Your task to perform on an android device: turn on the 12-hour format for clock Image 0: 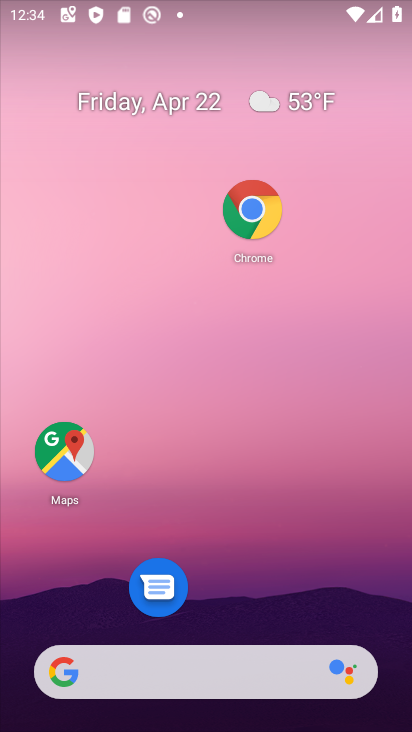
Step 0: drag from (260, 521) to (204, 98)
Your task to perform on an android device: turn on the 12-hour format for clock Image 1: 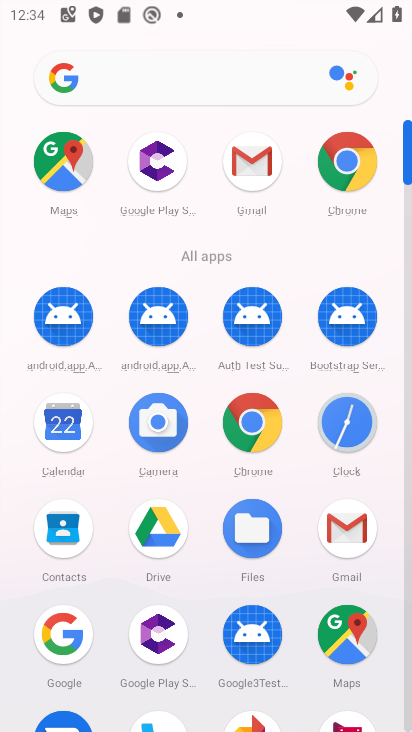
Step 1: drag from (288, 244) to (281, 12)
Your task to perform on an android device: turn on the 12-hour format for clock Image 2: 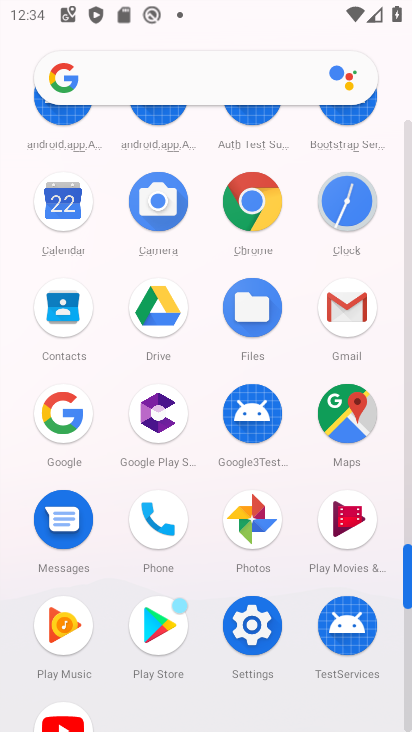
Step 2: click (341, 190)
Your task to perform on an android device: turn on the 12-hour format for clock Image 3: 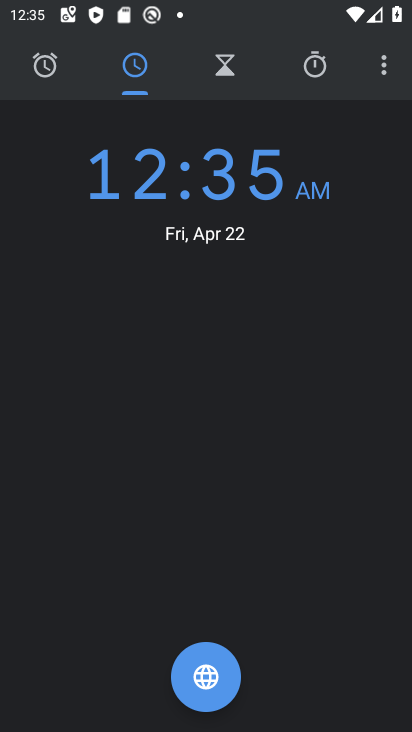
Step 3: click (381, 66)
Your task to perform on an android device: turn on the 12-hour format for clock Image 4: 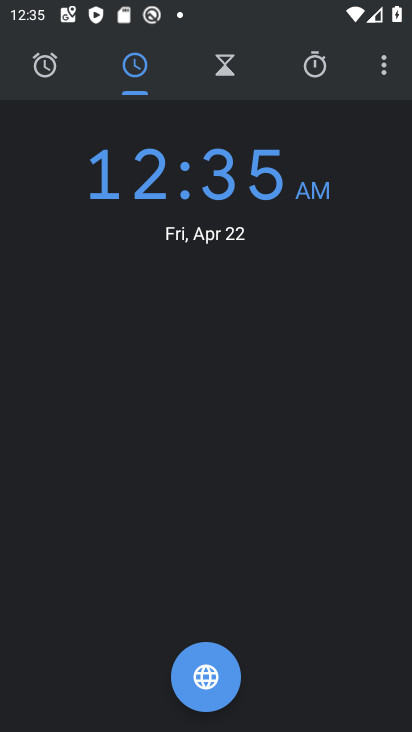
Step 4: click (388, 65)
Your task to perform on an android device: turn on the 12-hour format for clock Image 5: 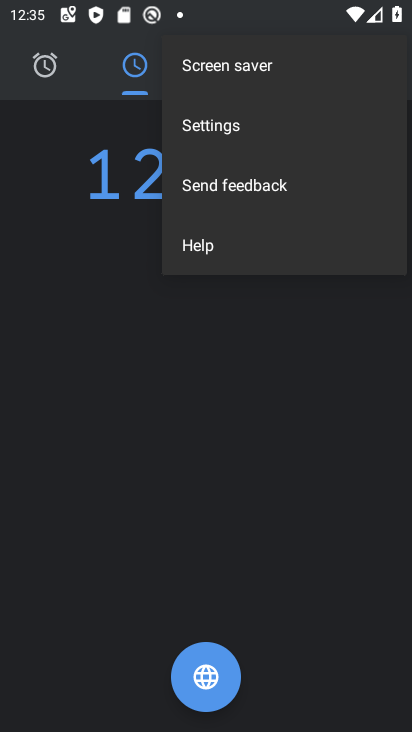
Step 5: click (228, 131)
Your task to perform on an android device: turn on the 12-hour format for clock Image 6: 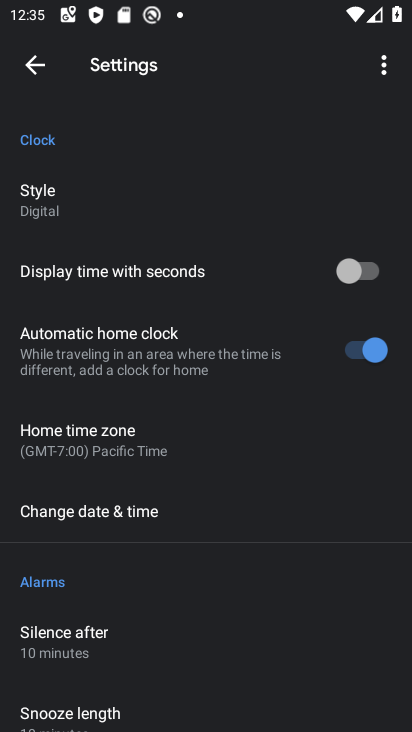
Step 6: click (64, 500)
Your task to perform on an android device: turn on the 12-hour format for clock Image 7: 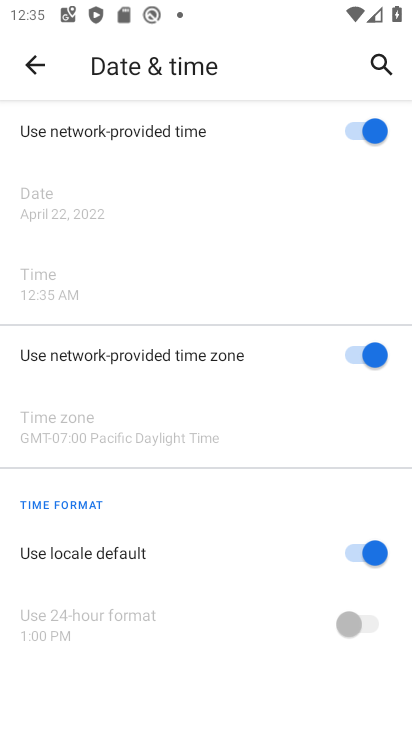
Step 7: click (359, 554)
Your task to perform on an android device: turn on the 12-hour format for clock Image 8: 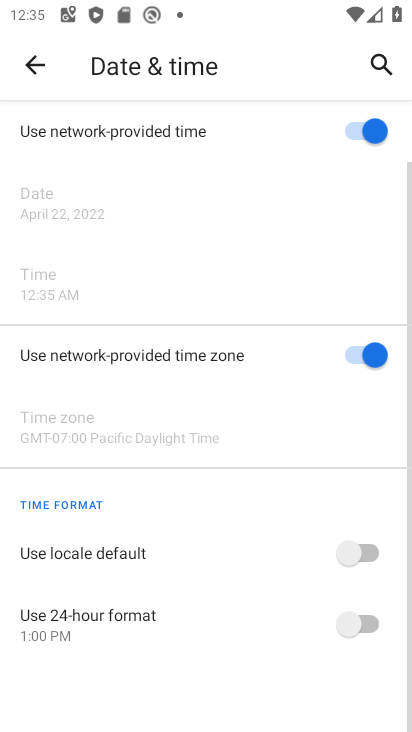
Step 8: click (370, 625)
Your task to perform on an android device: turn on the 12-hour format for clock Image 9: 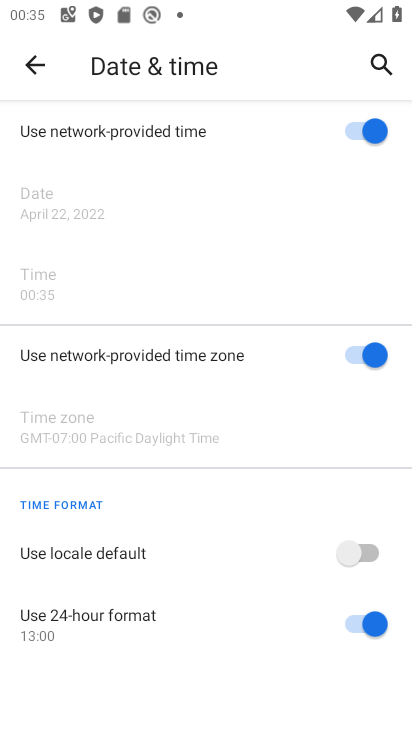
Step 9: task complete